Your task to perform on an android device: read, delete, or share a saved page in the chrome app Image 0: 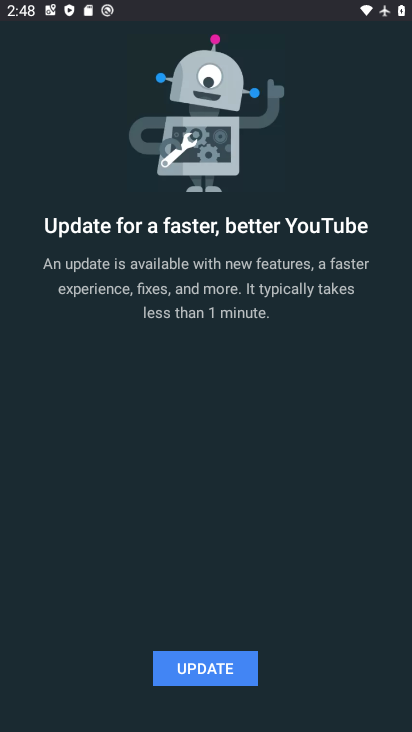
Step 0: press back button
Your task to perform on an android device: read, delete, or share a saved page in the chrome app Image 1: 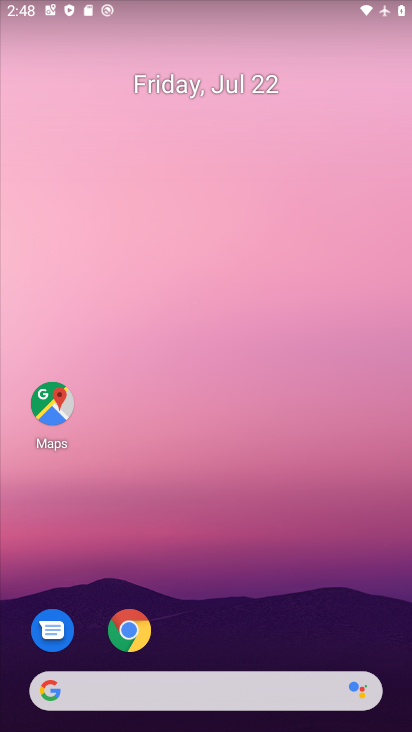
Step 1: drag from (195, 643) to (184, 47)
Your task to perform on an android device: read, delete, or share a saved page in the chrome app Image 2: 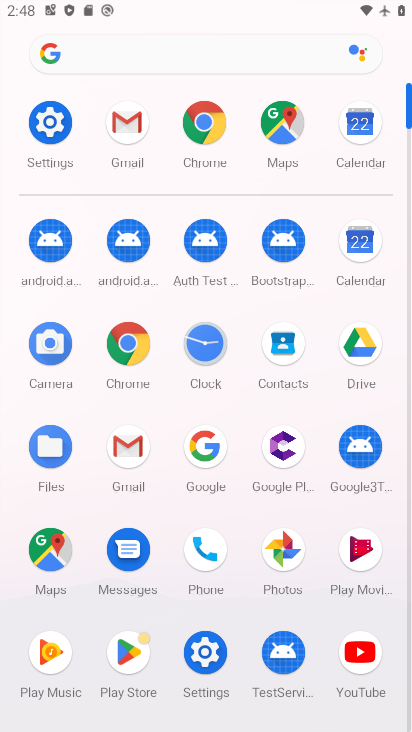
Step 2: click (130, 342)
Your task to perform on an android device: read, delete, or share a saved page in the chrome app Image 3: 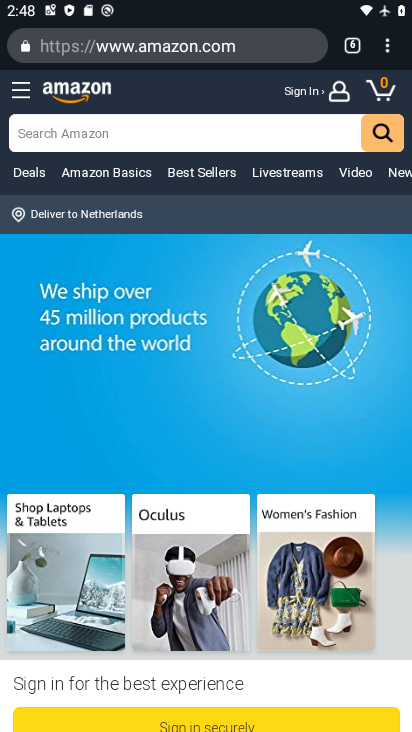
Step 3: task complete